Your task to perform on an android device: turn on airplane mode Image 0: 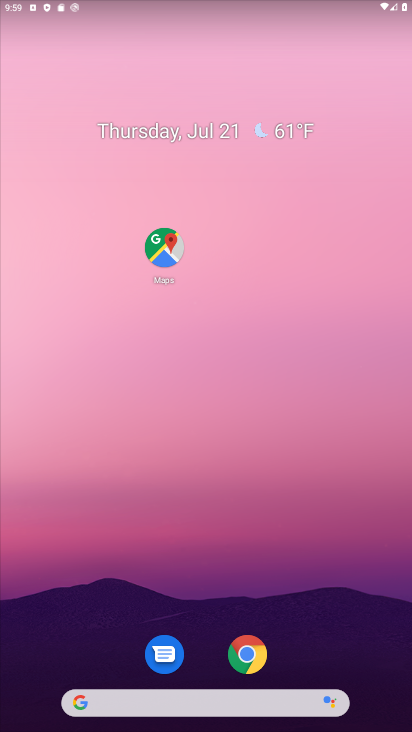
Step 0: drag from (22, 675) to (171, 111)
Your task to perform on an android device: turn on airplane mode Image 1: 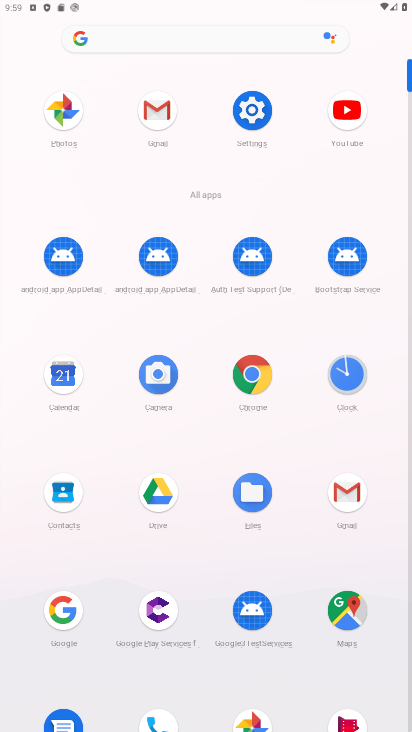
Step 1: click (248, 120)
Your task to perform on an android device: turn on airplane mode Image 2: 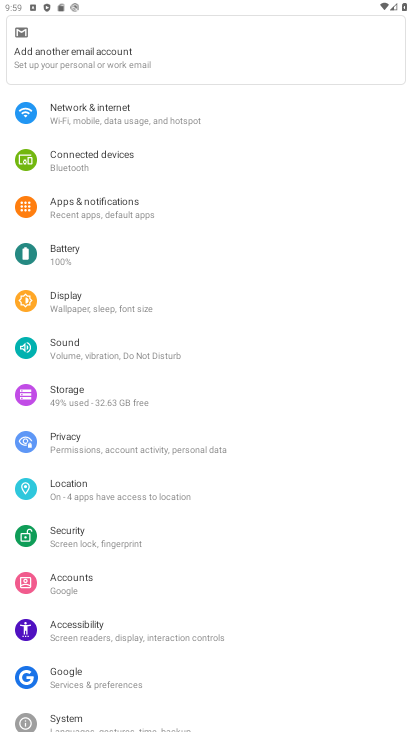
Step 2: click (98, 114)
Your task to perform on an android device: turn on airplane mode Image 3: 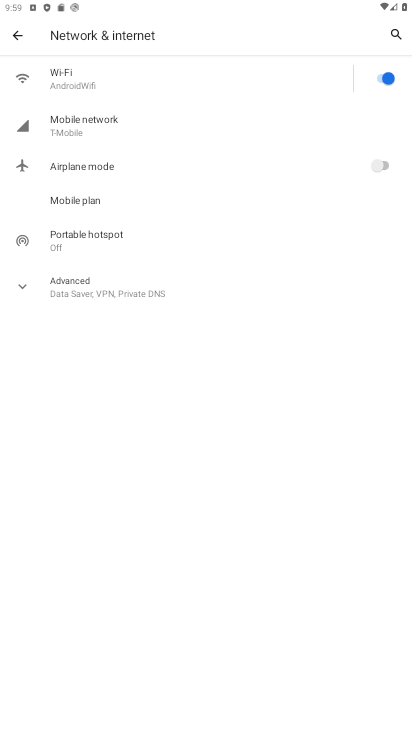
Step 3: click (374, 165)
Your task to perform on an android device: turn on airplane mode Image 4: 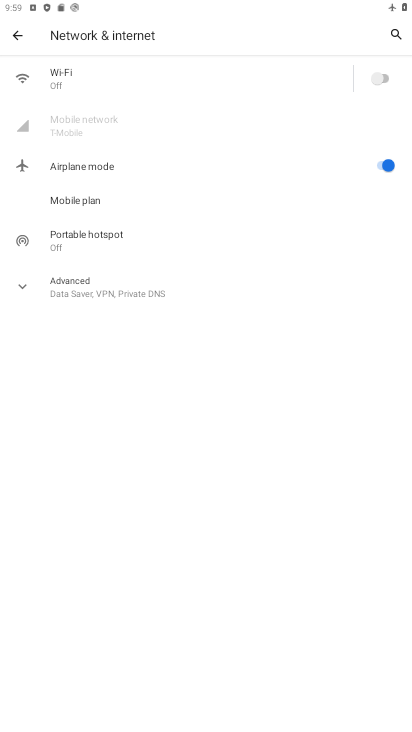
Step 4: task complete